Your task to perform on an android device: toggle sleep mode Image 0: 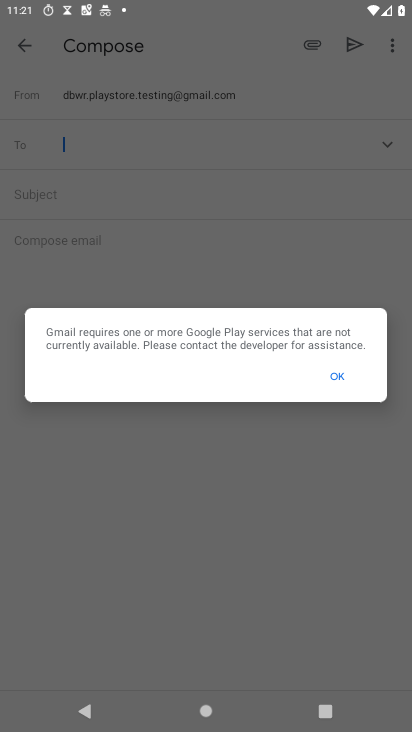
Step 0: click (344, 372)
Your task to perform on an android device: toggle sleep mode Image 1: 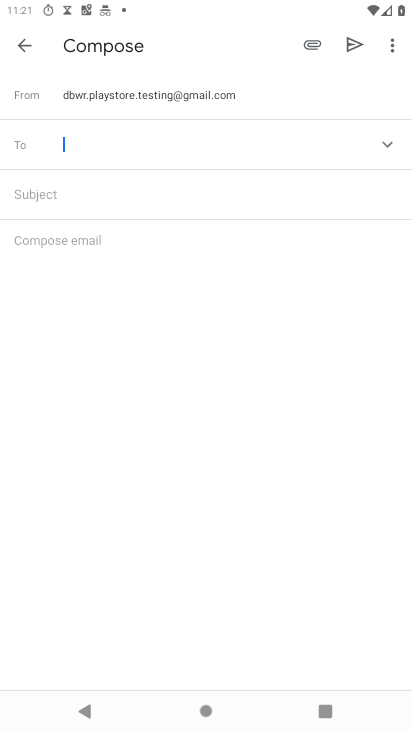
Step 1: click (258, 459)
Your task to perform on an android device: toggle sleep mode Image 2: 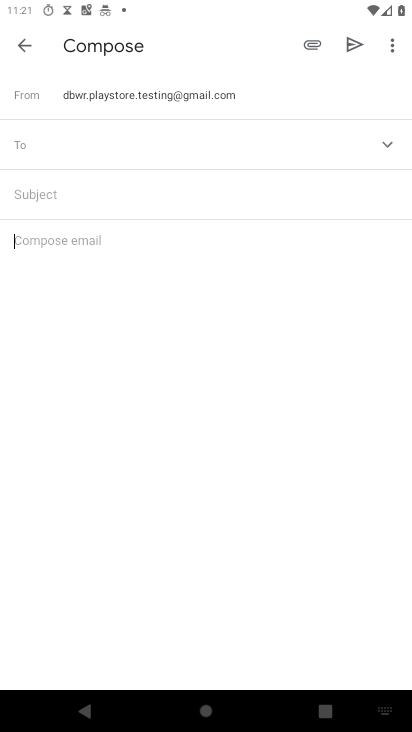
Step 2: click (18, 49)
Your task to perform on an android device: toggle sleep mode Image 3: 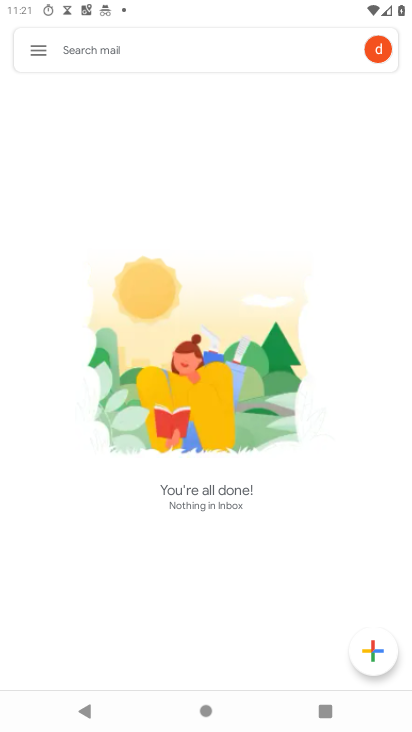
Step 3: press back button
Your task to perform on an android device: toggle sleep mode Image 4: 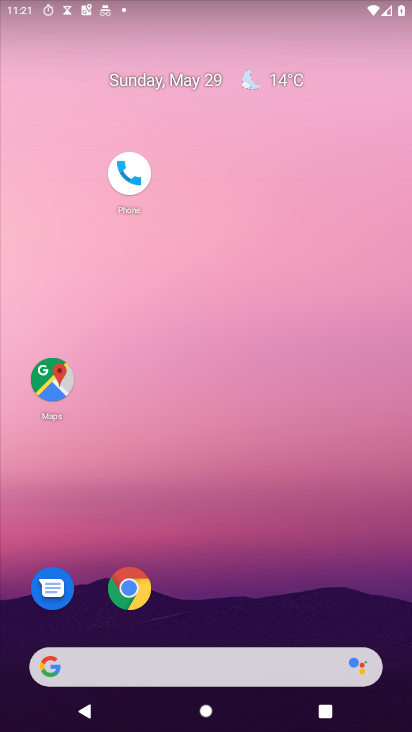
Step 4: drag from (254, 651) to (200, 67)
Your task to perform on an android device: toggle sleep mode Image 5: 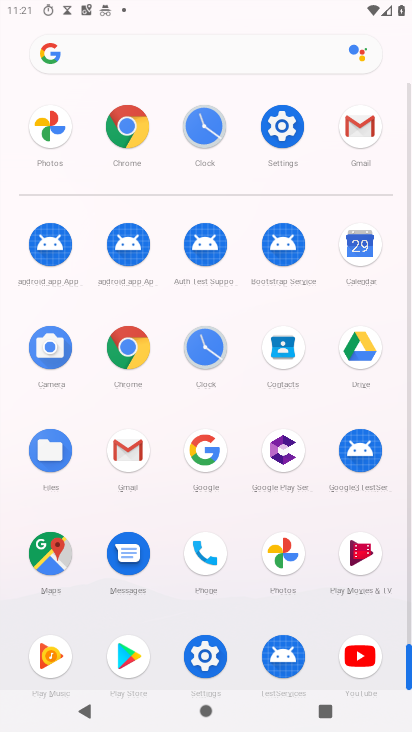
Step 5: click (272, 124)
Your task to perform on an android device: toggle sleep mode Image 6: 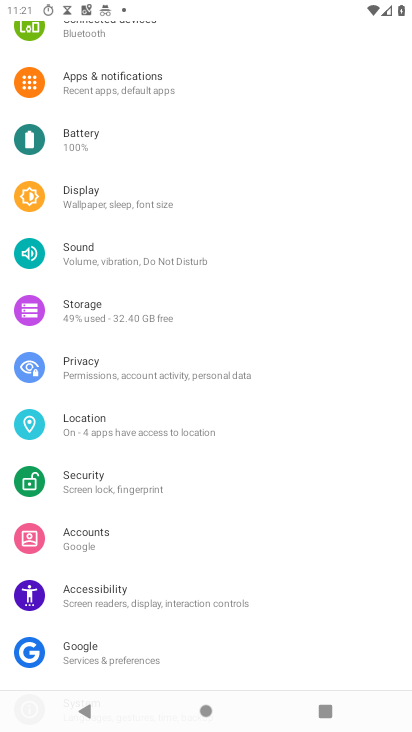
Step 6: click (71, 198)
Your task to perform on an android device: toggle sleep mode Image 7: 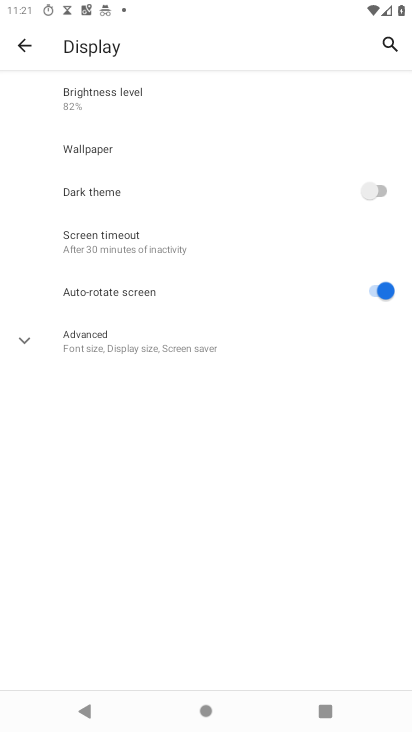
Step 7: click (84, 236)
Your task to perform on an android device: toggle sleep mode Image 8: 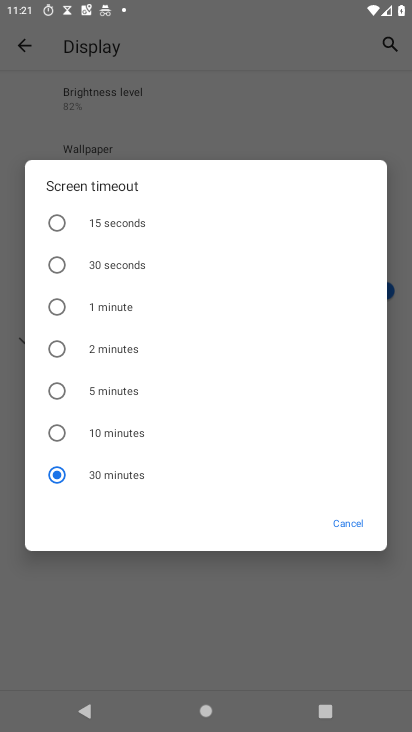
Step 8: click (50, 388)
Your task to perform on an android device: toggle sleep mode Image 9: 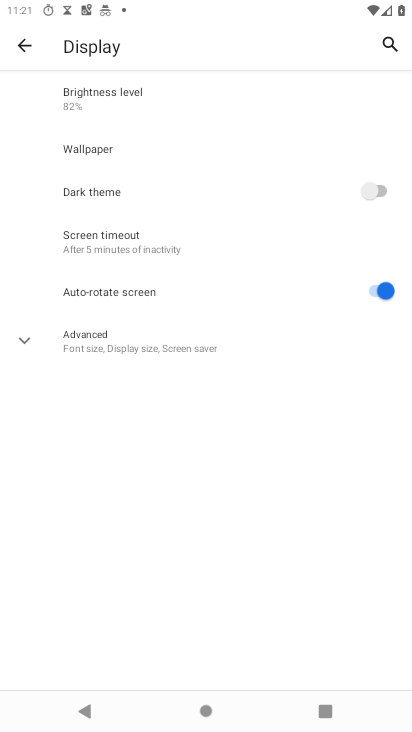
Step 9: task complete